Your task to perform on an android device: When is my next appointment? Image 0: 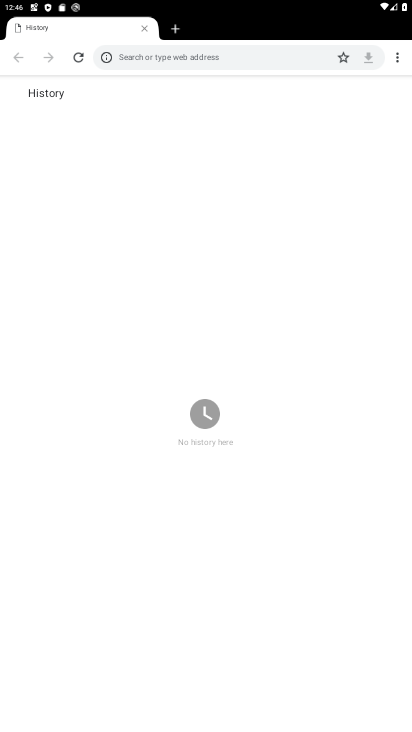
Step 0: press home button
Your task to perform on an android device: When is my next appointment? Image 1: 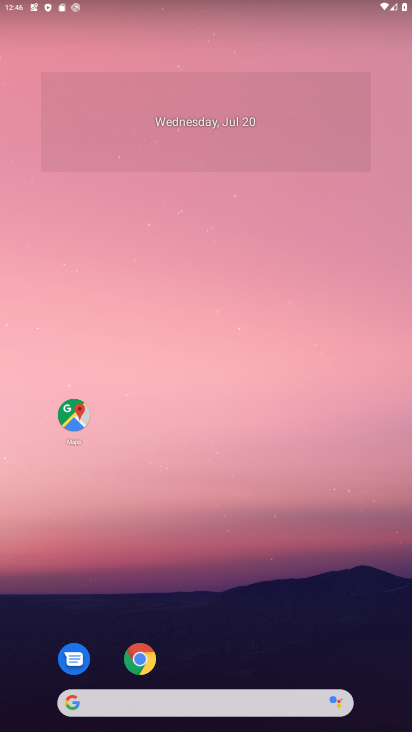
Step 1: drag from (208, 358) to (209, 260)
Your task to perform on an android device: When is my next appointment? Image 2: 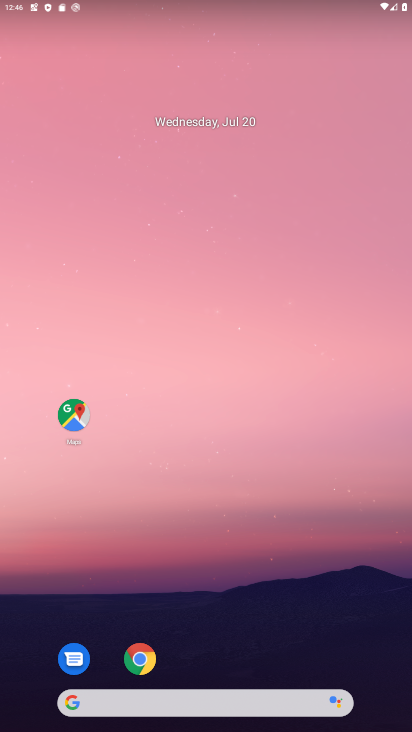
Step 2: drag from (270, 629) to (263, 196)
Your task to perform on an android device: When is my next appointment? Image 3: 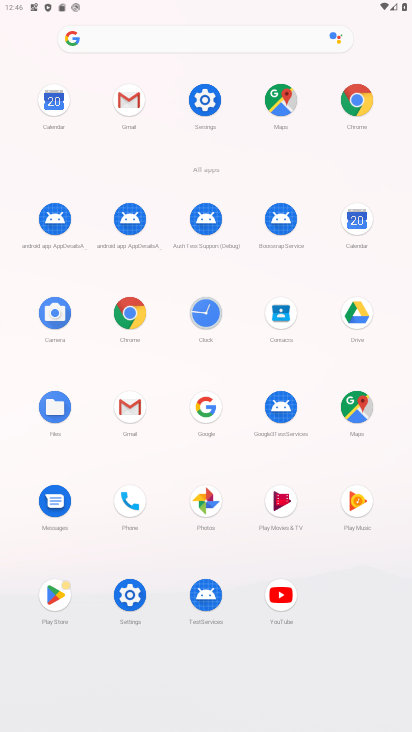
Step 3: click (352, 217)
Your task to perform on an android device: When is my next appointment? Image 4: 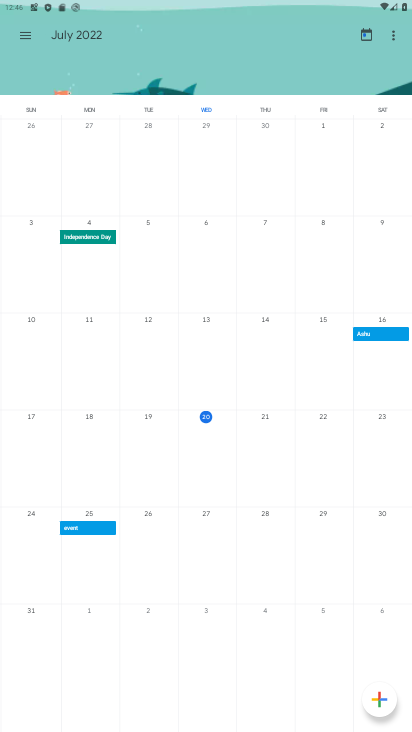
Step 4: task complete